Your task to perform on an android device: Open the web browser Image 0: 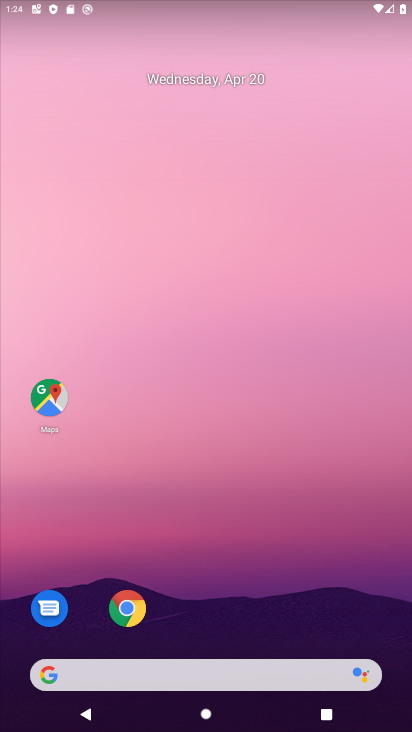
Step 0: click (128, 606)
Your task to perform on an android device: Open the web browser Image 1: 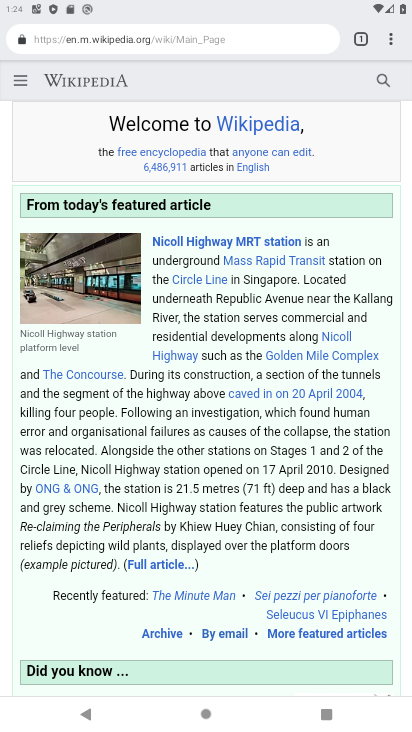
Step 1: task complete